Your task to perform on an android device: Open Google Image 0: 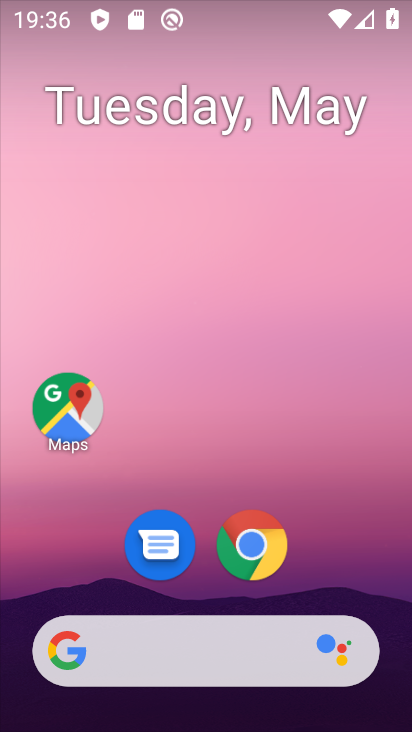
Step 0: drag from (387, 612) to (408, 81)
Your task to perform on an android device: Open Google Image 1: 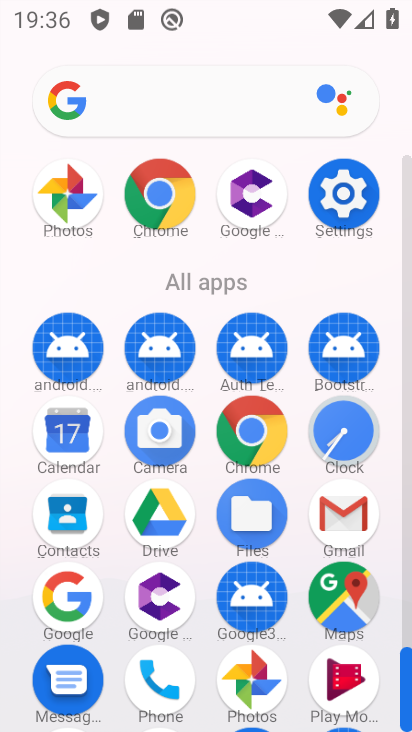
Step 1: click (78, 595)
Your task to perform on an android device: Open Google Image 2: 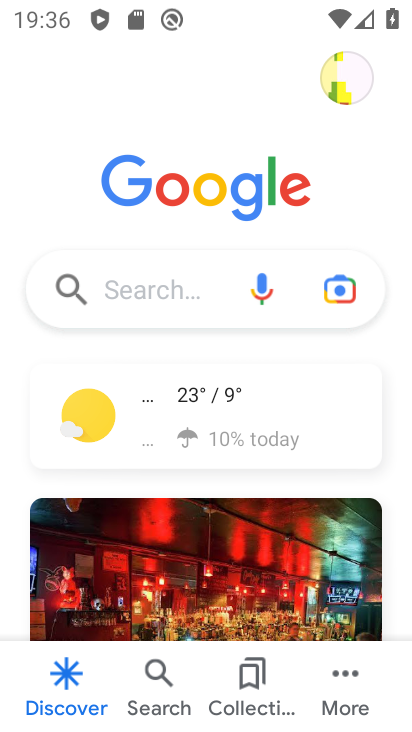
Step 2: task complete